Your task to perform on an android device: Open Wikipedia Image 0: 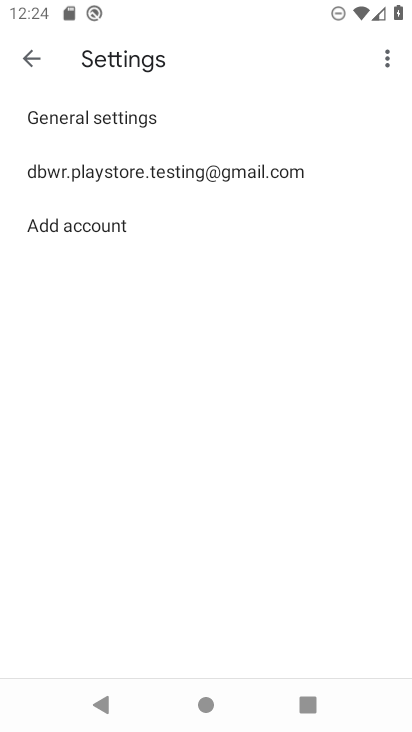
Step 0: press home button
Your task to perform on an android device: Open Wikipedia Image 1: 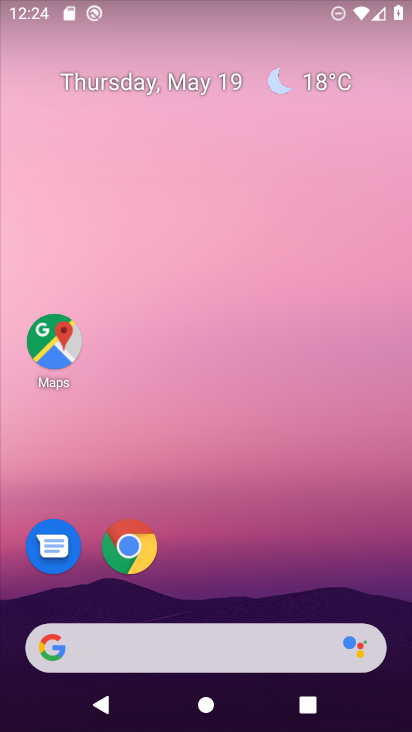
Step 1: click (128, 545)
Your task to perform on an android device: Open Wikipedia Image 2: 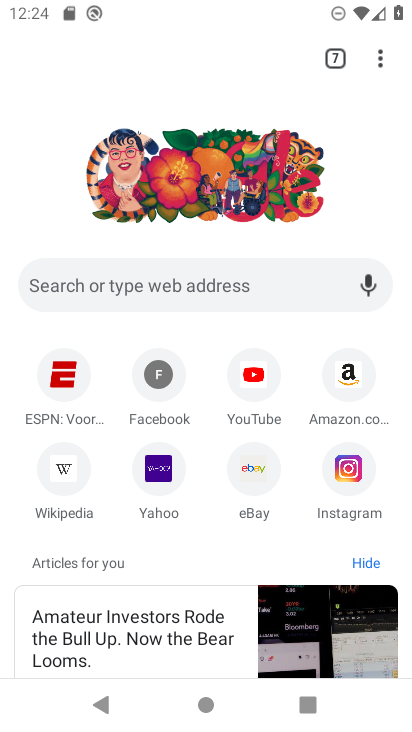
Step 2: click (157, 279)
Your task to perform on an android device: Open Wikipedia Image 3: 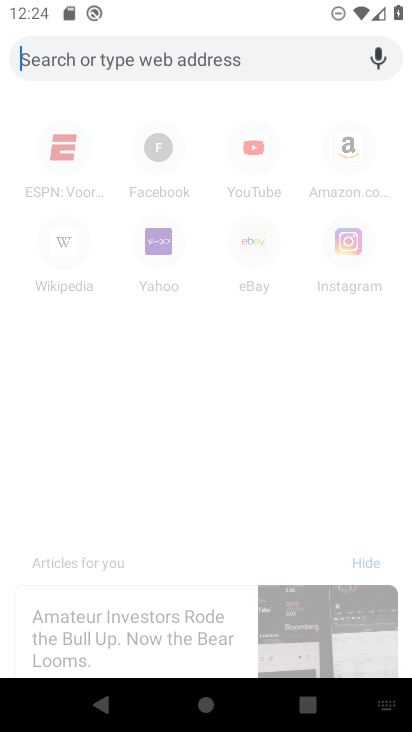
Step 3: type "Wikipedia"
Your task to perform on an android device: Open Wikipedia Image 4: 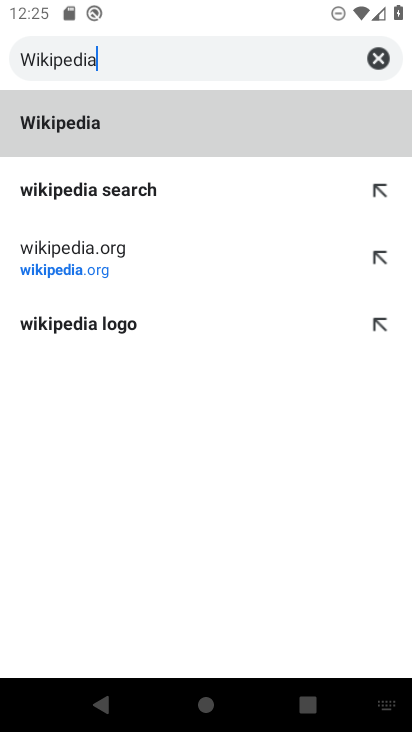
Step 4: click (104, 122)
Your task to perform on an android device: Open Wikipedia Image 5: 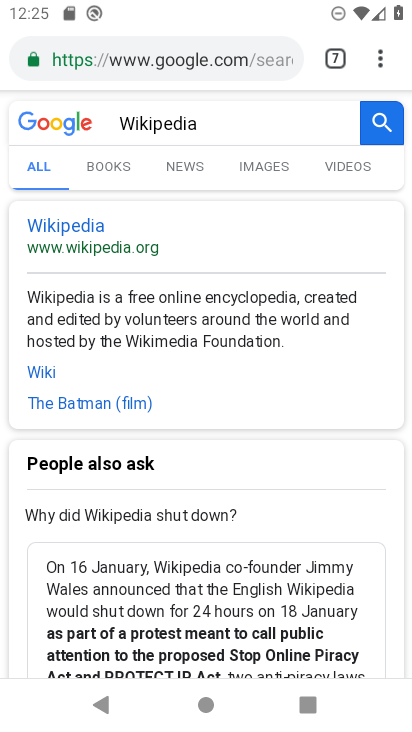
Step 5: click (83, 226)
Your task to perform on an android device: Open Wikipedia Image 6: 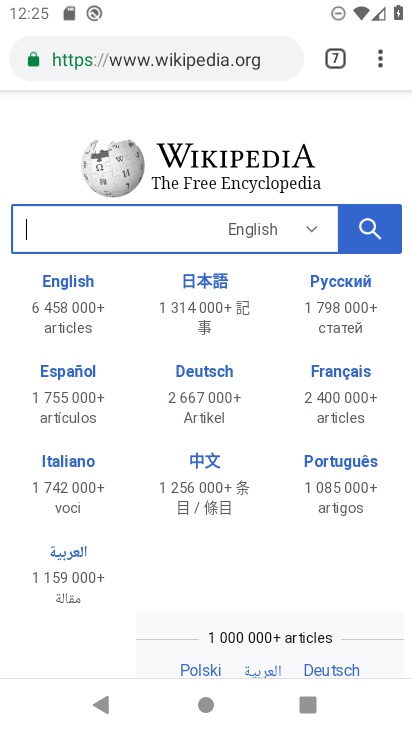
Step 6: task complete